Your task to perform on an android device: turn on bluetooth scan Image 0: 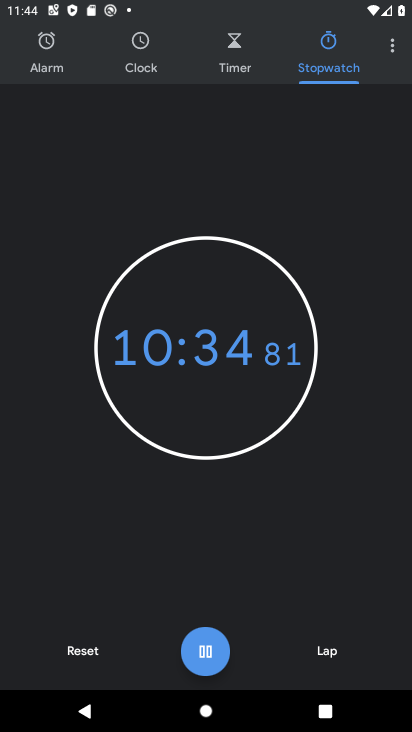
Step 0: click (68, 647)
Your task to perform on an android device: turn on bluetooth scan Image 1: 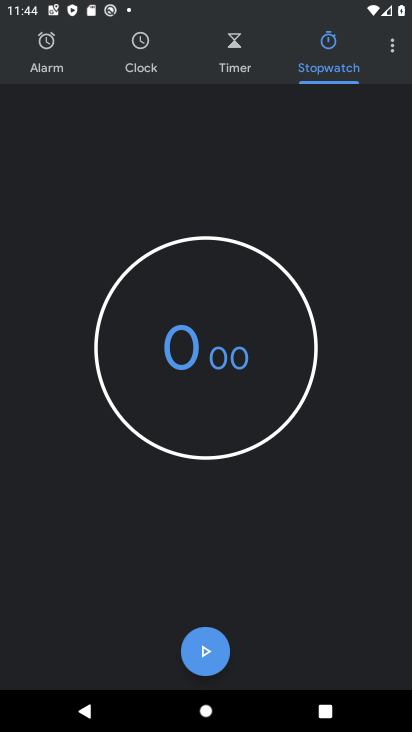
Step 1: press home button
Your task to perform on an android device: turn on bluetooth scan Image 2: 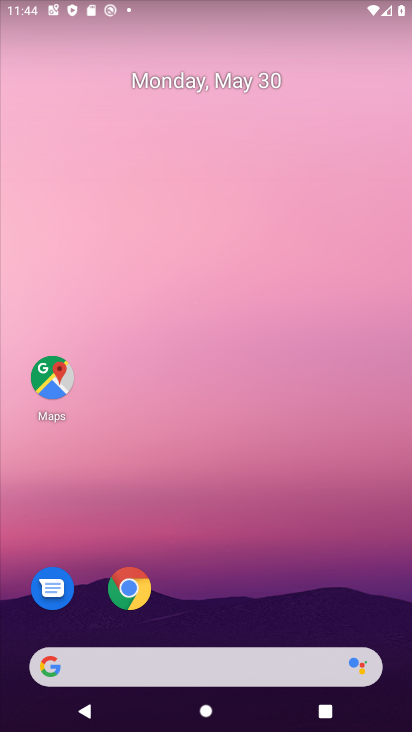
Step 2: drag from (251, 607) to (291, 62)
Your task to perform on an android device: turn on bluetooth scan Image 3: 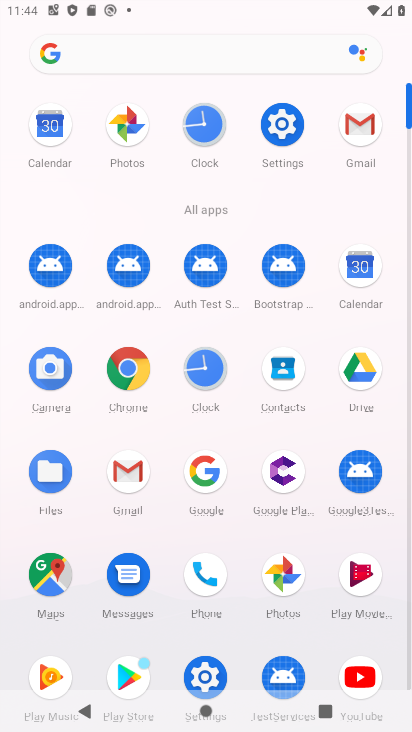
Step 3: click (281, 118)
Your task to perform on an android device: turn on bluetooth scan Image 4: 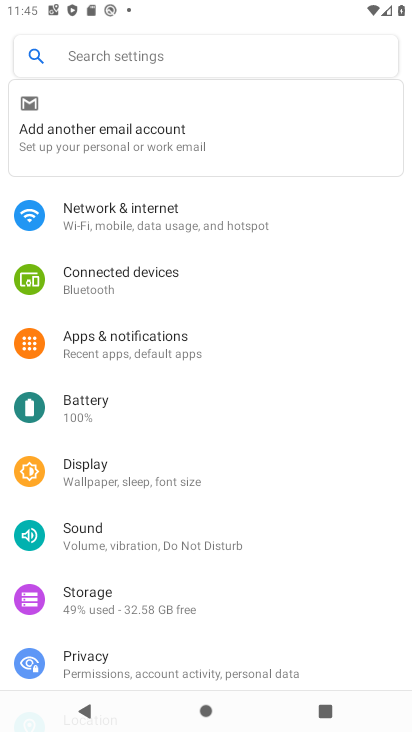
Step 4: drag from (146, 637) to (164, 256)
Your task to perform on an android device: turn on bluetooth scan Image 5: 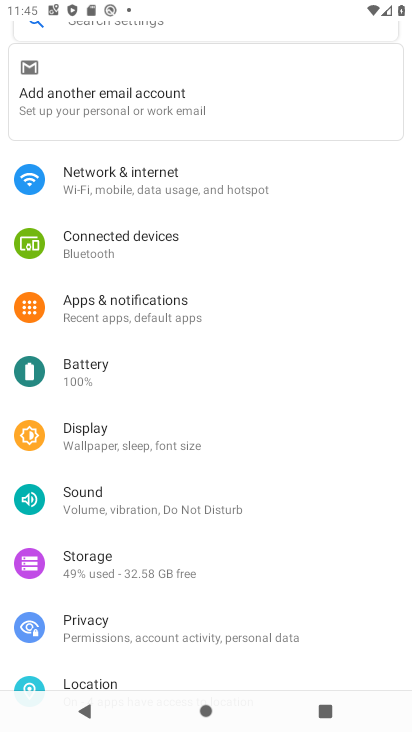
Step 5: click (133, 675)
Your task to perform on an android device: turn on bluetooth scan Image 6: 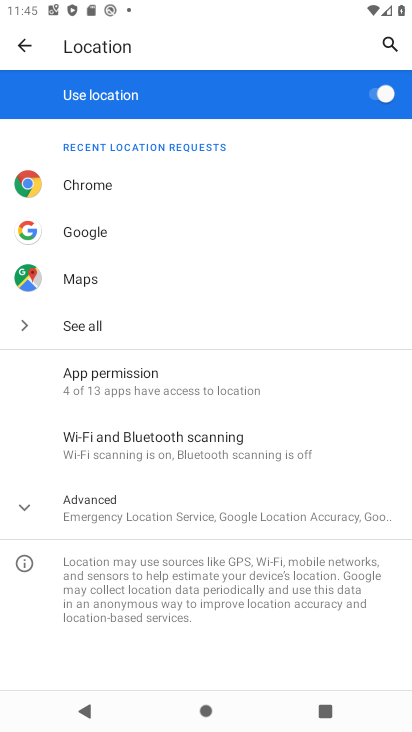
Step 6: drag from (194, 361) to (201, 3)
Your task to perform on an android device: turn on bluetooth scan Image 7: 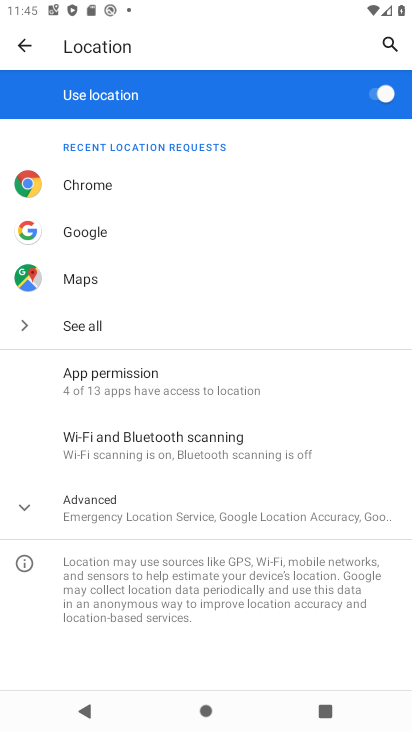
Step 7: click (192, 441)
Your task to perform on an android device: turn on bluetooth scan Image 8: 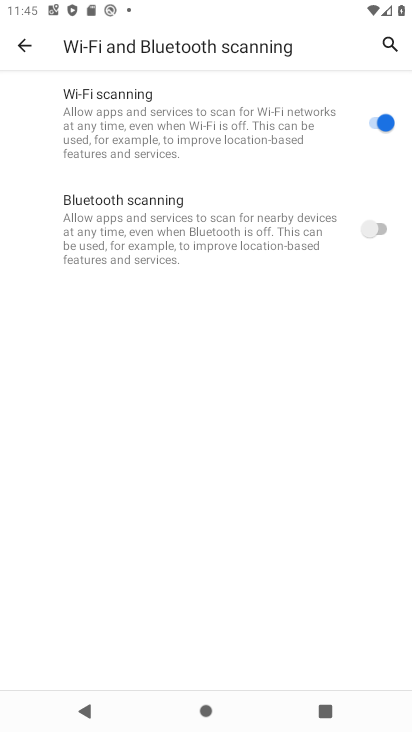
Step 8: click (378, 230)
Your task to perform on an android device: turn on bluetooth scan Image 9: 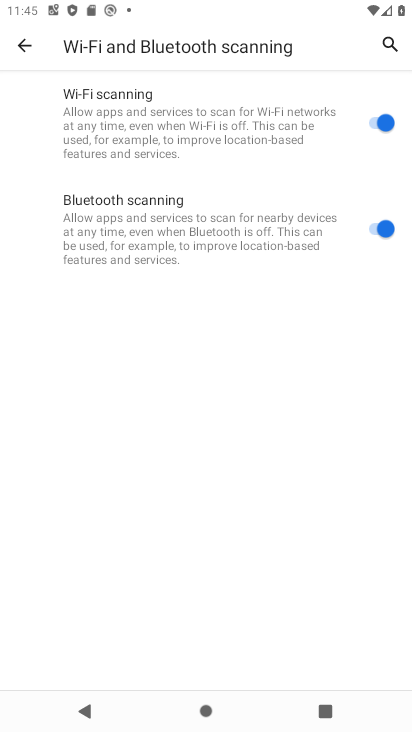
Step 9: task complete